Your task to perform on an android device: Go to location settings Image 0: 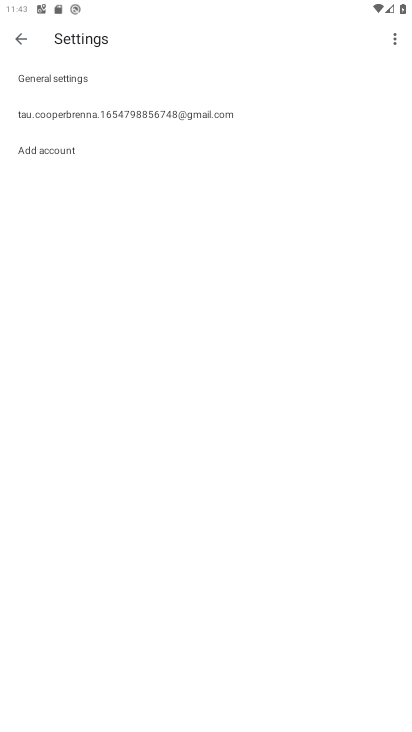
Step 0: press home button
Your task to perform on an android device: Go to location settings Image 1: 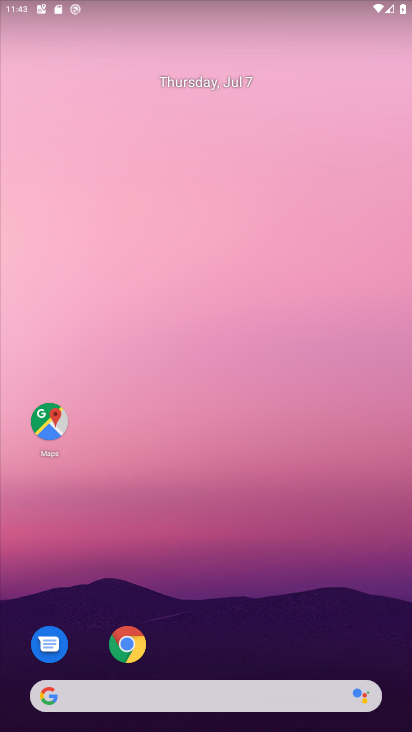
Step 1: drag from (43, 685) to (152, 193)
Your task to perform on an android device: Go to location settings Image 2: 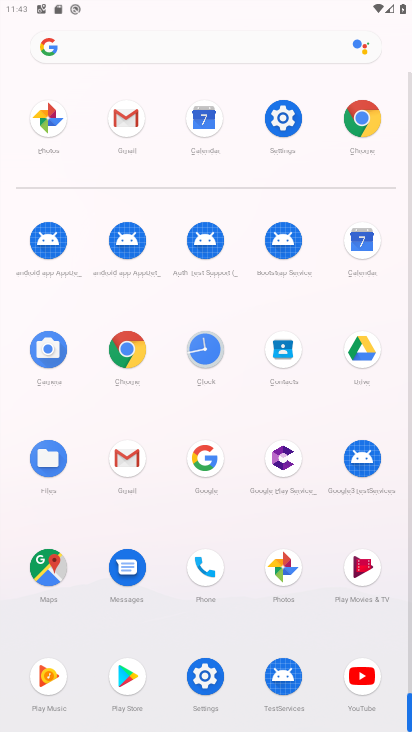
Step 2: click (202, 674)
Your task to perform on an android device: Go to location settings Image 3: 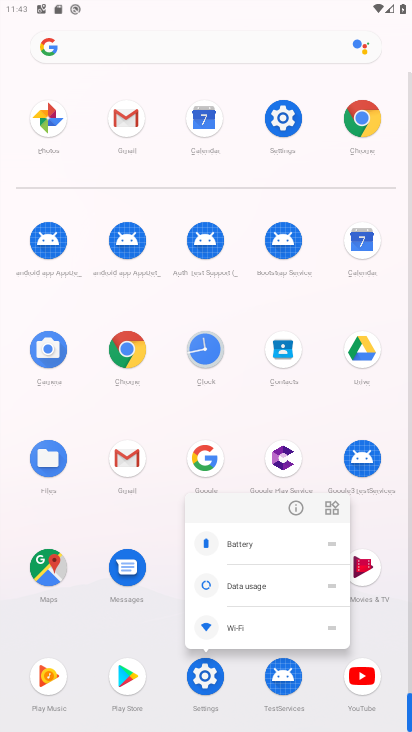
Step 3: click (197, 677)
Your task to perform on an android device: Go to location settings Image 4: 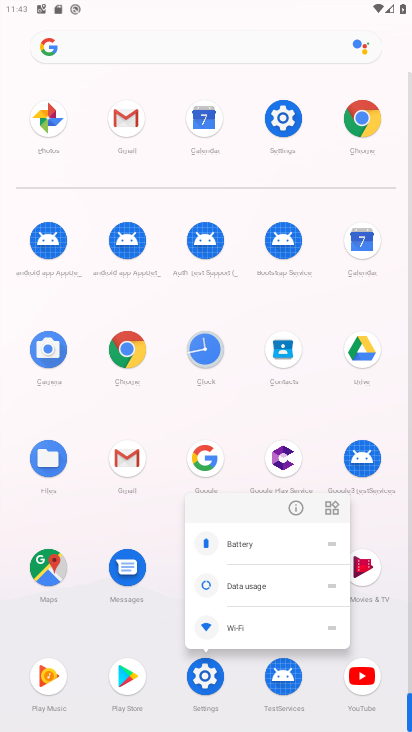
Step 4: click (191, 660)
Your task to perform on an android device: Go to location settings Image 5: 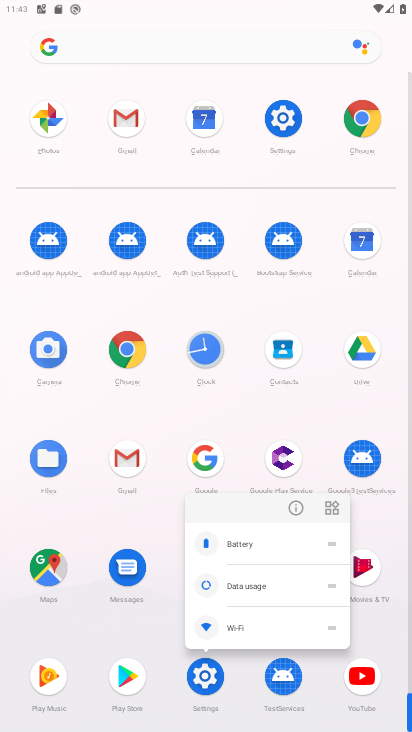
Step 5: click (209, 684)
Your task to perform on an android device: Go to location settings Image 6: 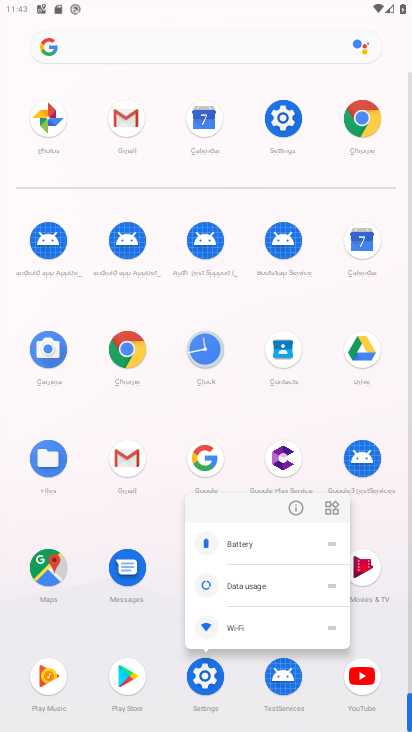
Step 6: click (200, 674)
Your task to perform on an android device: Go to location settings Image 7: 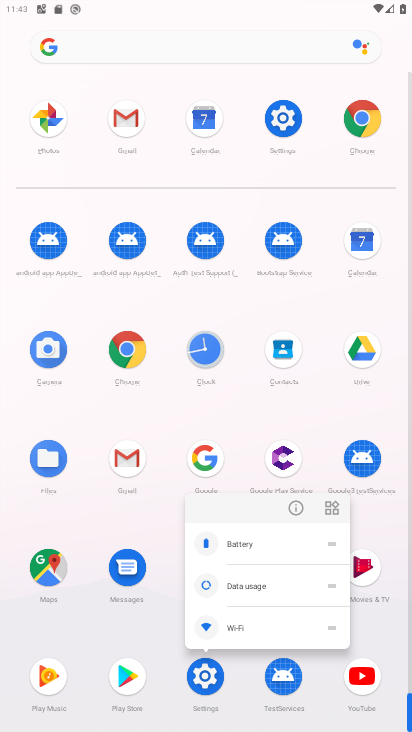
Step 7: click (201, 670)
Your task to perform on an android device: Go to location settings Image 8: 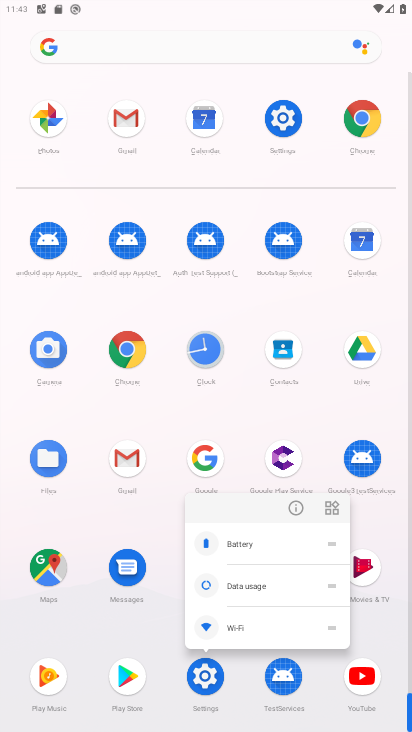
Step 8: task complete